Your task to perform on an android device: What's on the menu at Pizza Hut? Image 0: 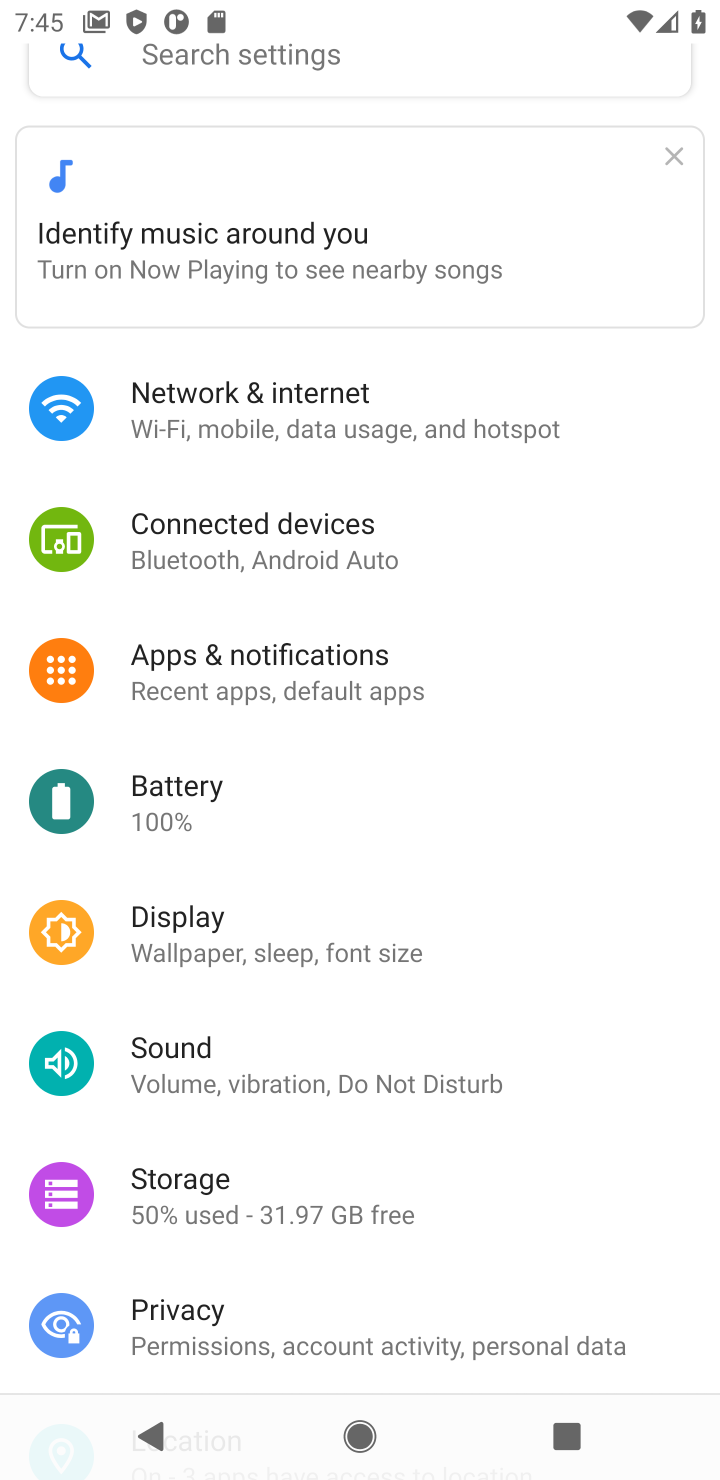
Step 0: press home button
Your task to perform on an android device: What's on the menu at Pizza Hut? Image 1: 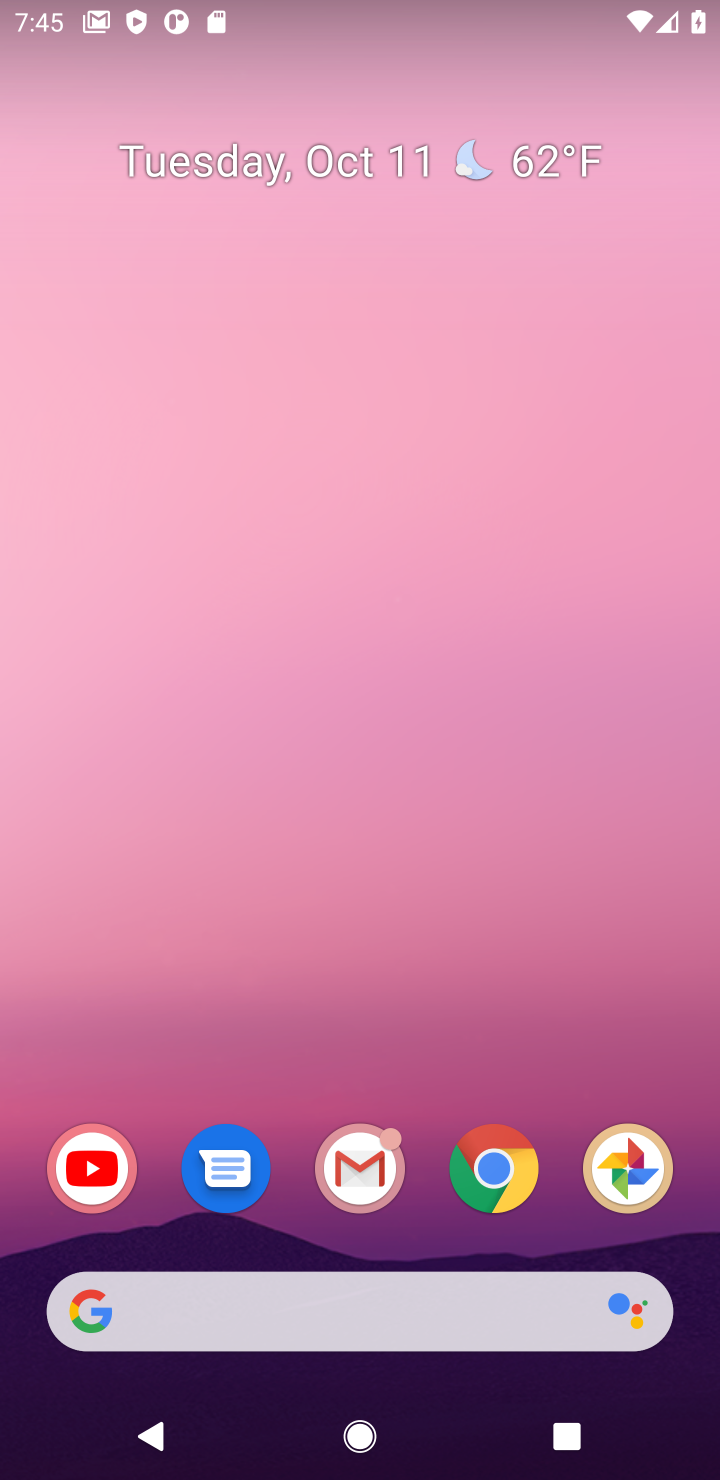
Step 1: click (499, 1152)
Your task to perform on an android device: What's on the menu at Pizza Hut? Image 2: 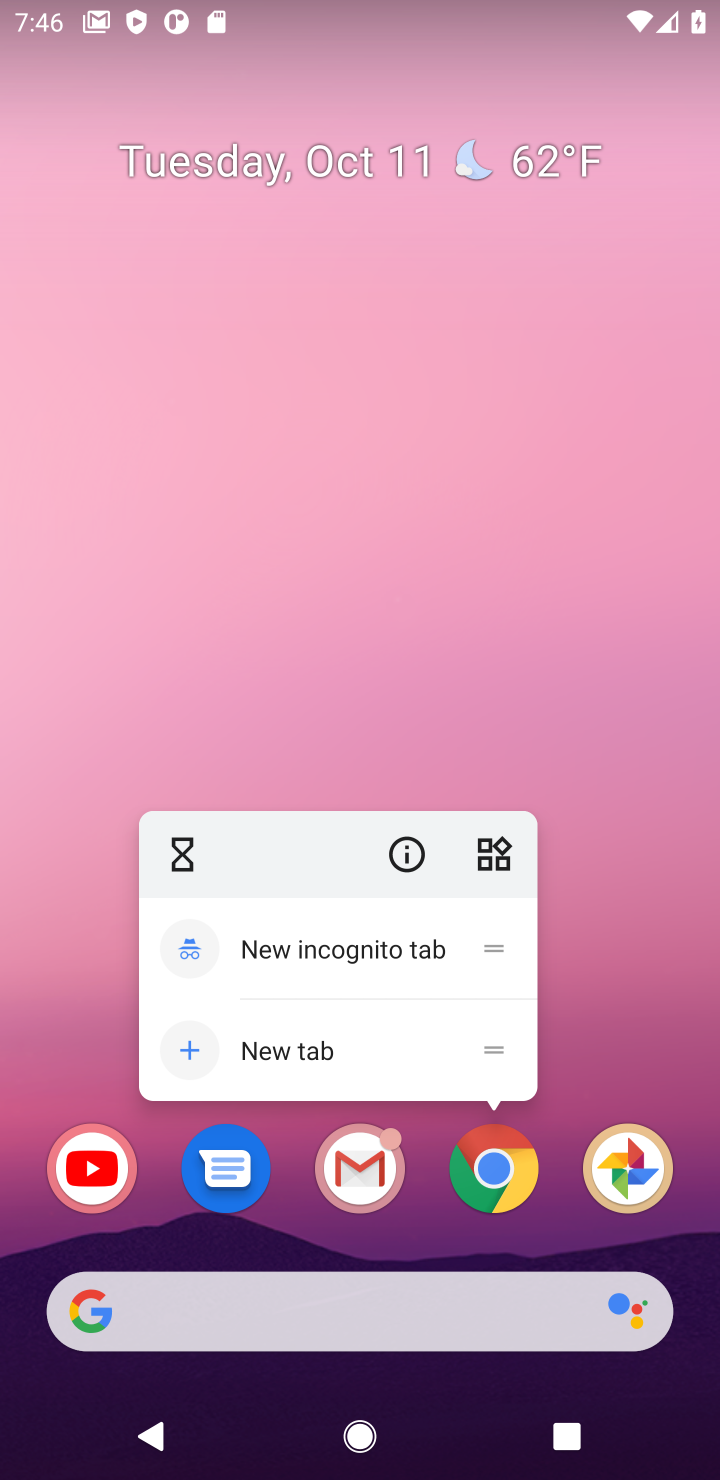
Step 2: click (499, 1154)
Your task to perform on an android device: What's on the menu at Pizza Hut? Image 3: 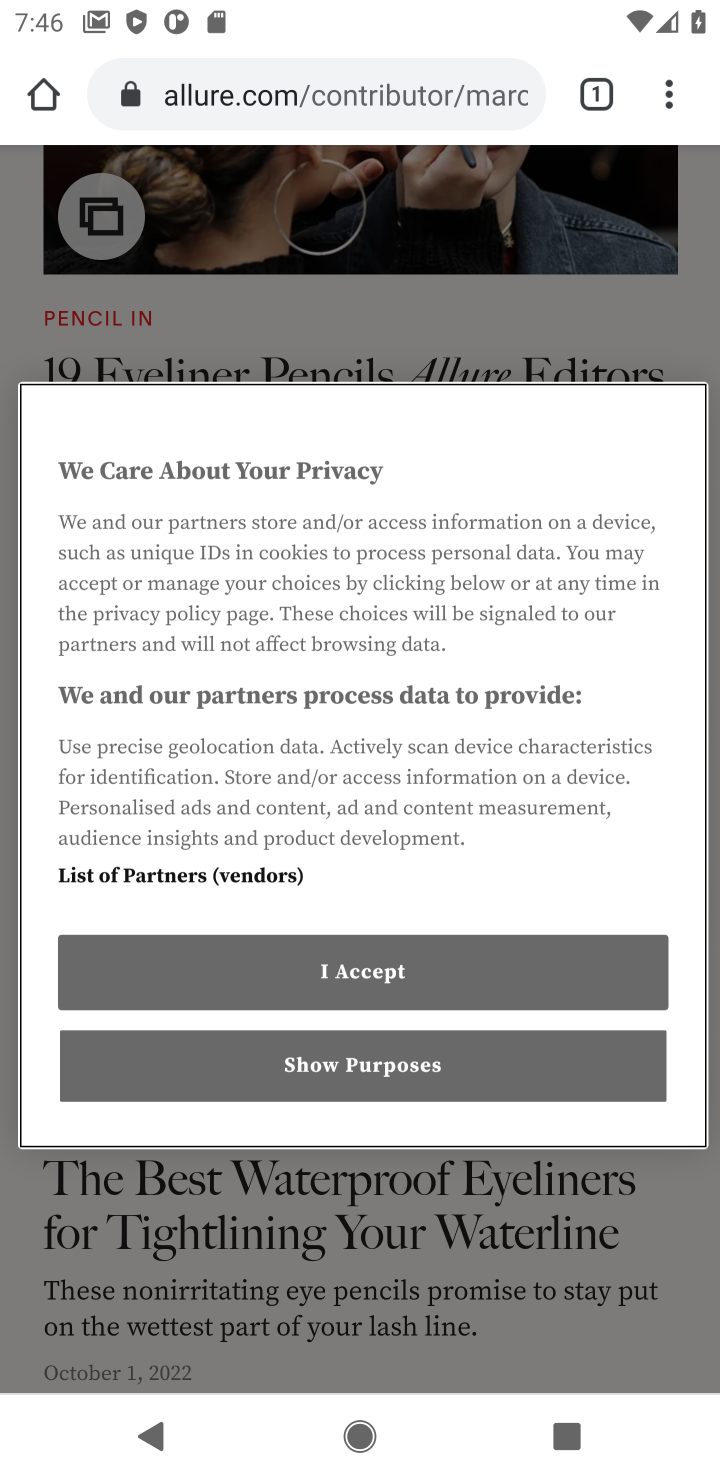
Step 3: click (370, 102)
Your task to perform on an android device: What's on the menu at Pizza Hut? Image 4: 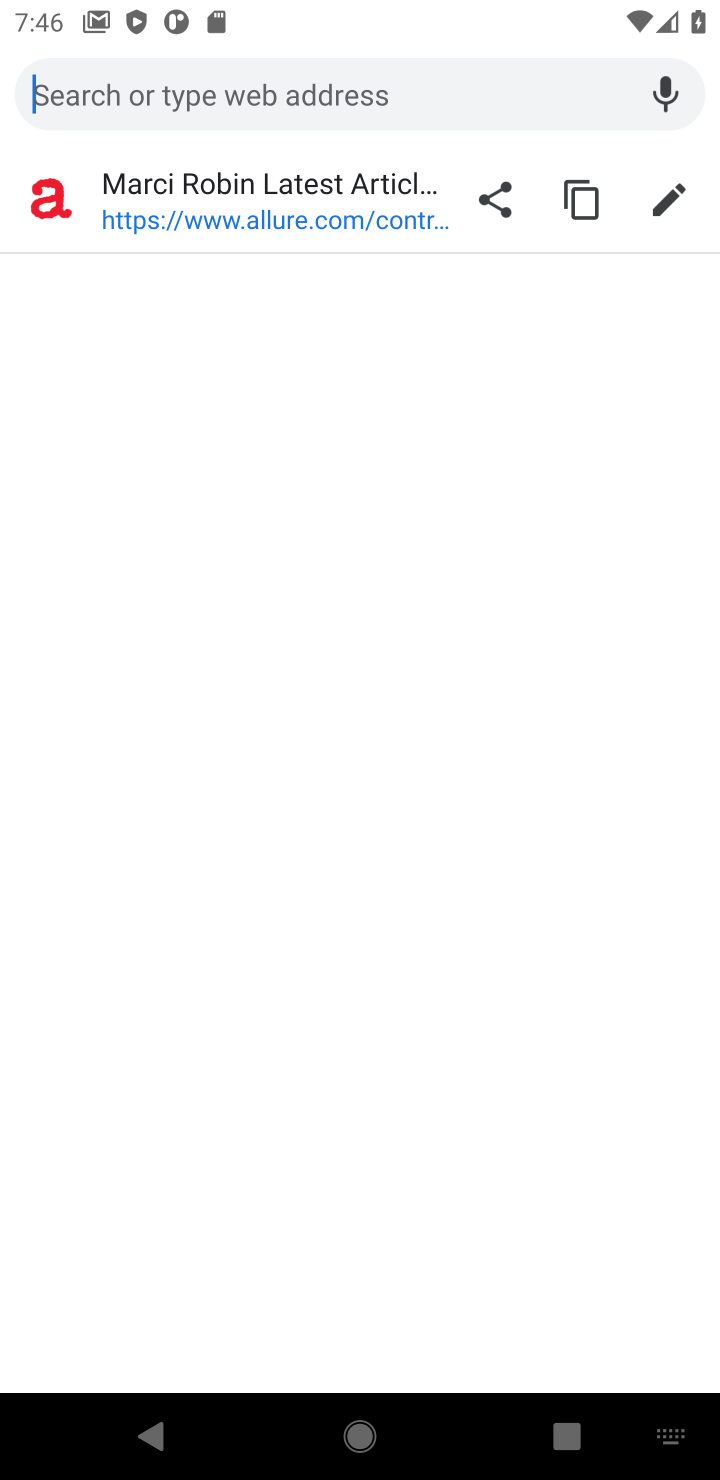
Step 4: type "pizzahut"
Your task to perform on an android device: What's on the menu at Pizza Hut? Image 5: 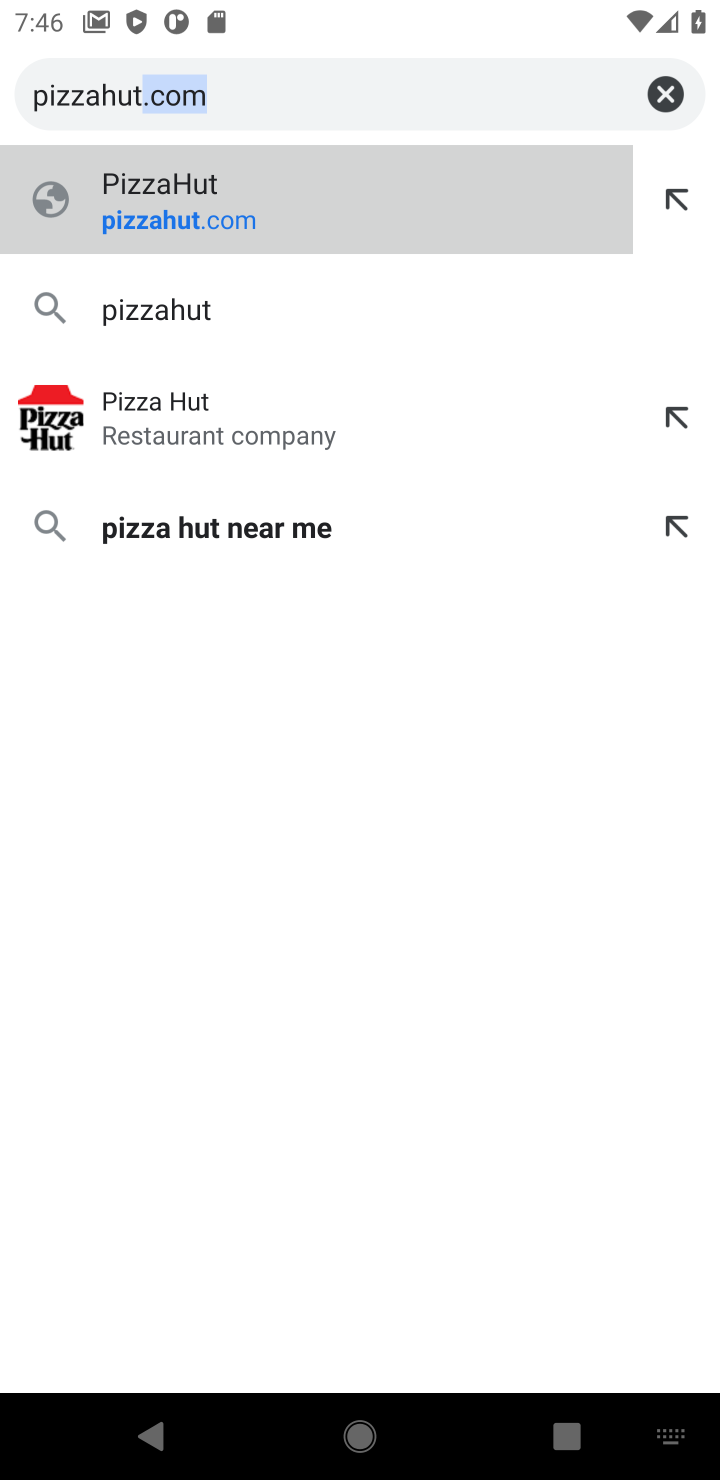
Step 5: click (198, 226)
Your task to perform on an android device: What's on the menu at Pizza Hut? Image 6: 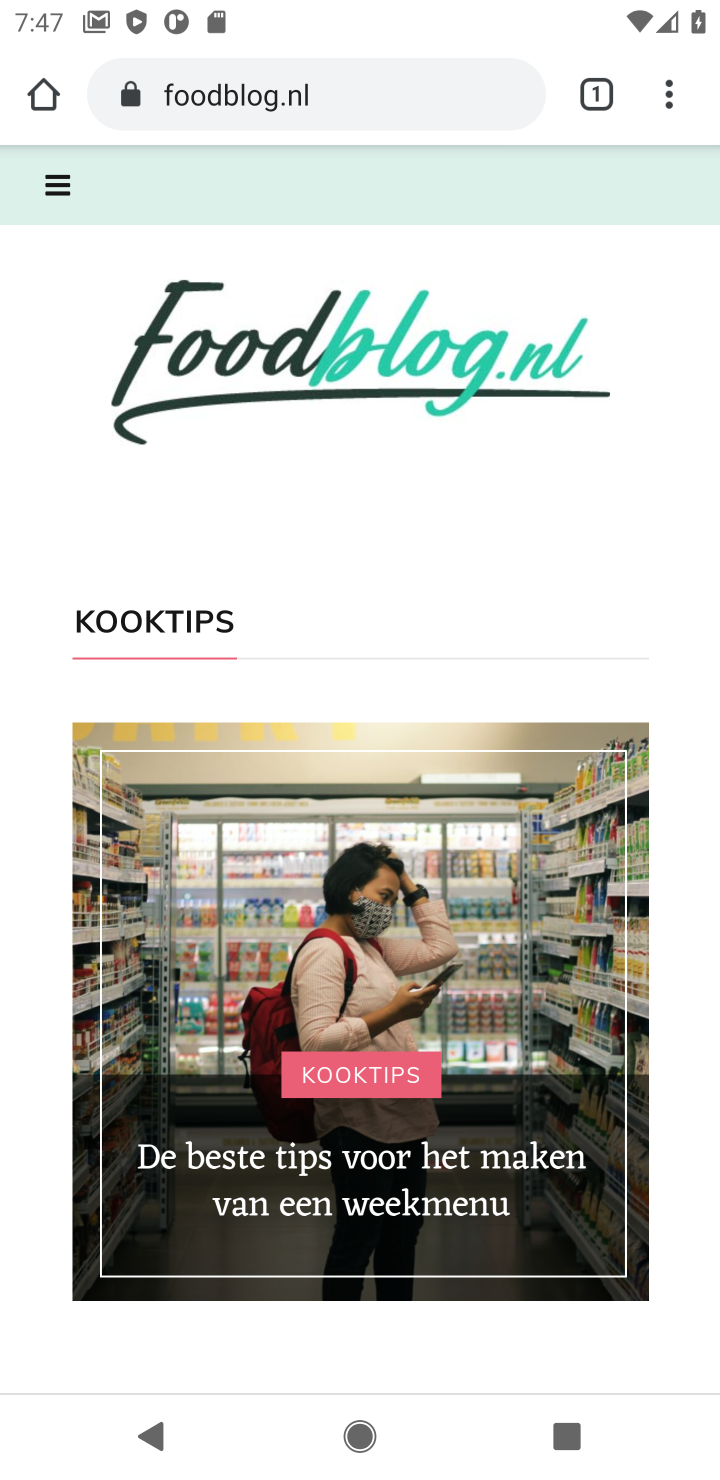
Step 6: drag from (475, 710) to (335, 945)
Your task to perform on an android device: What's on the menu at Pizza Hut? Image 7: 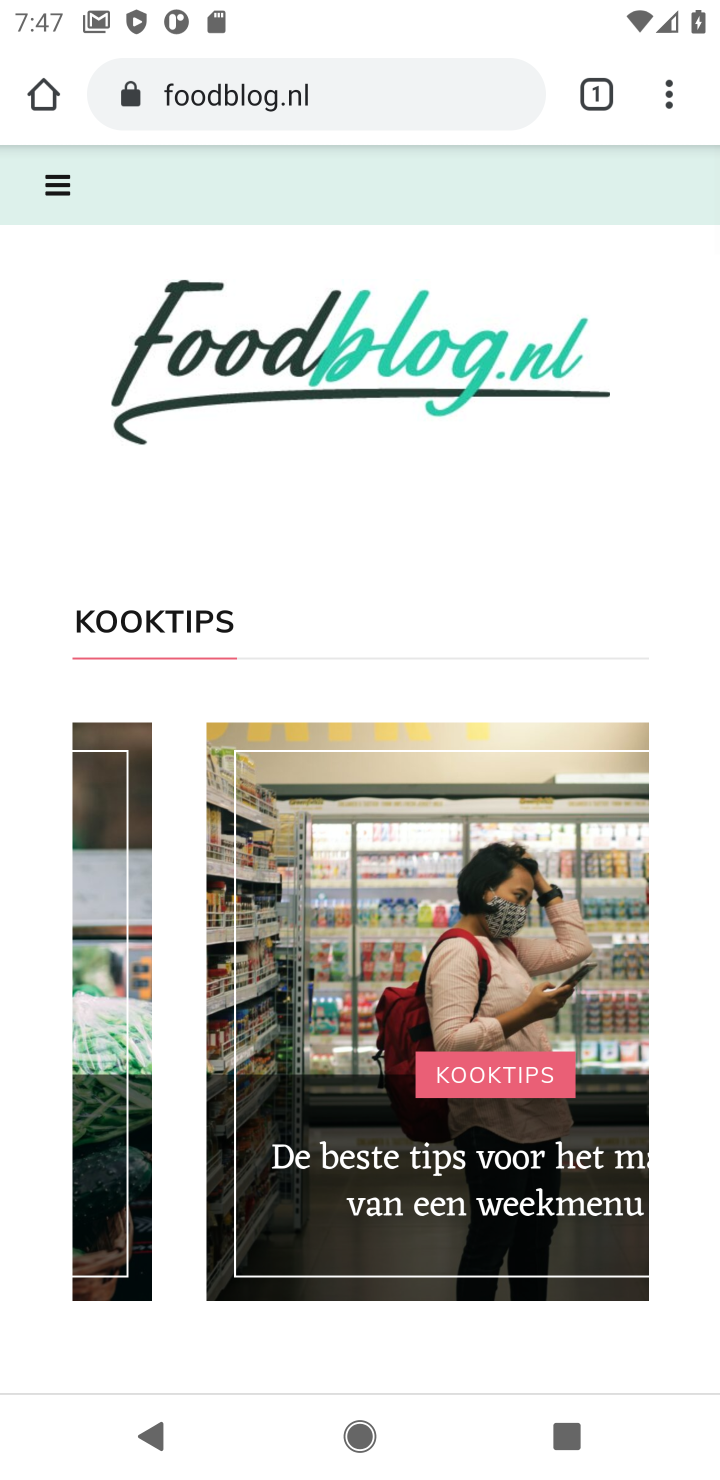
Step 7: drag from (176, 1259) to (217, 473)
Your task to perform on an android device: What's on the menu at Pizza Hut? Image 8: 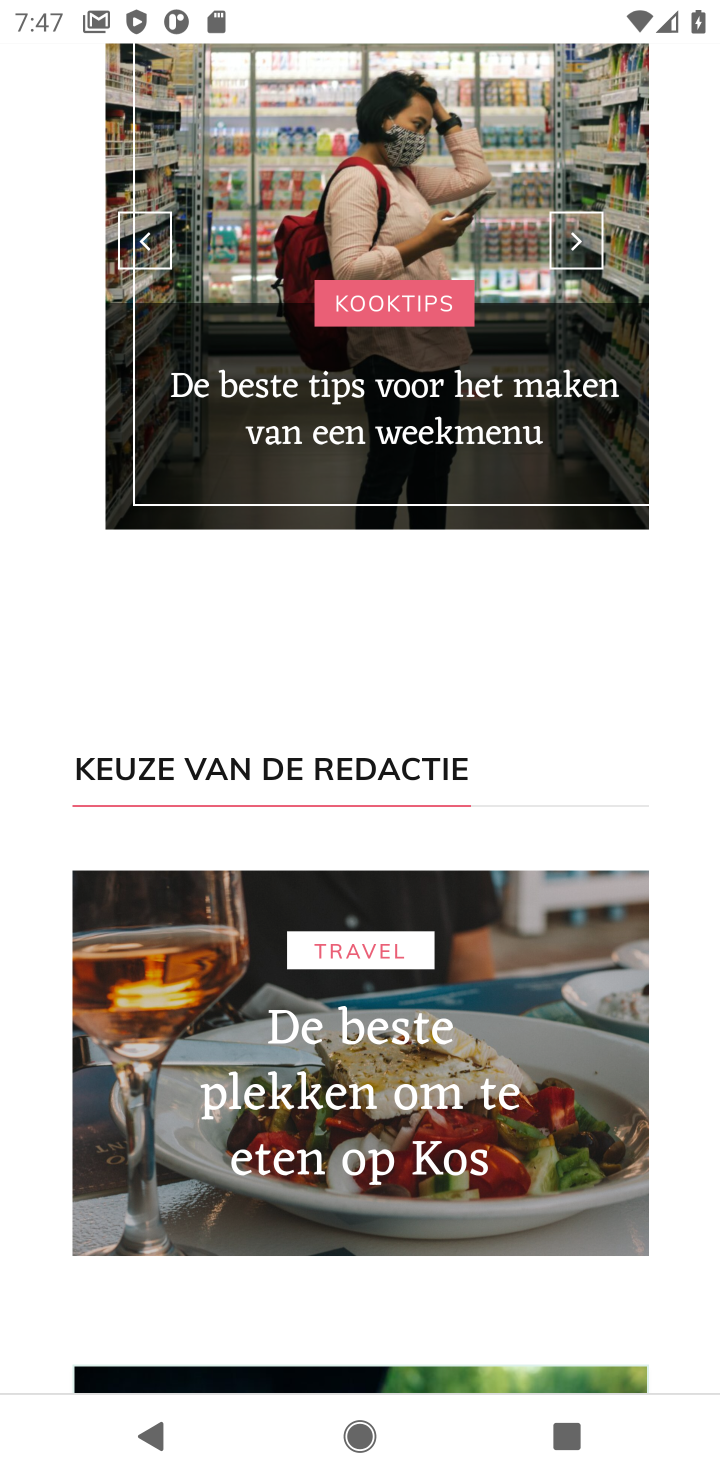
Step 8: drag from (392, 802) to (422, 266)
Your task to perform on an android device: What's on the menu at Pizza Hut? Image 9: 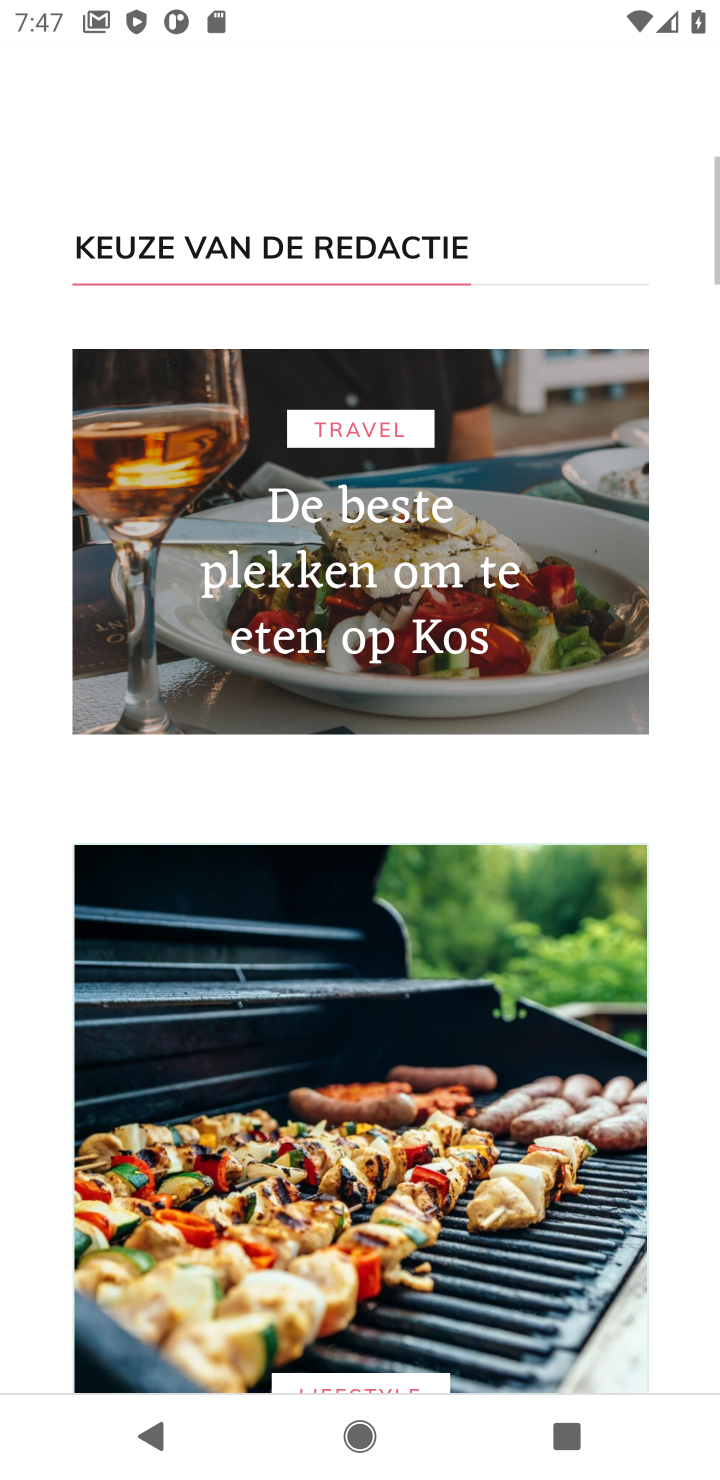
Step 9: drag from (470, 777) to (470, 533)
Your task to perform on an android device: What's on the menu at Pizza Hut? Image 10: 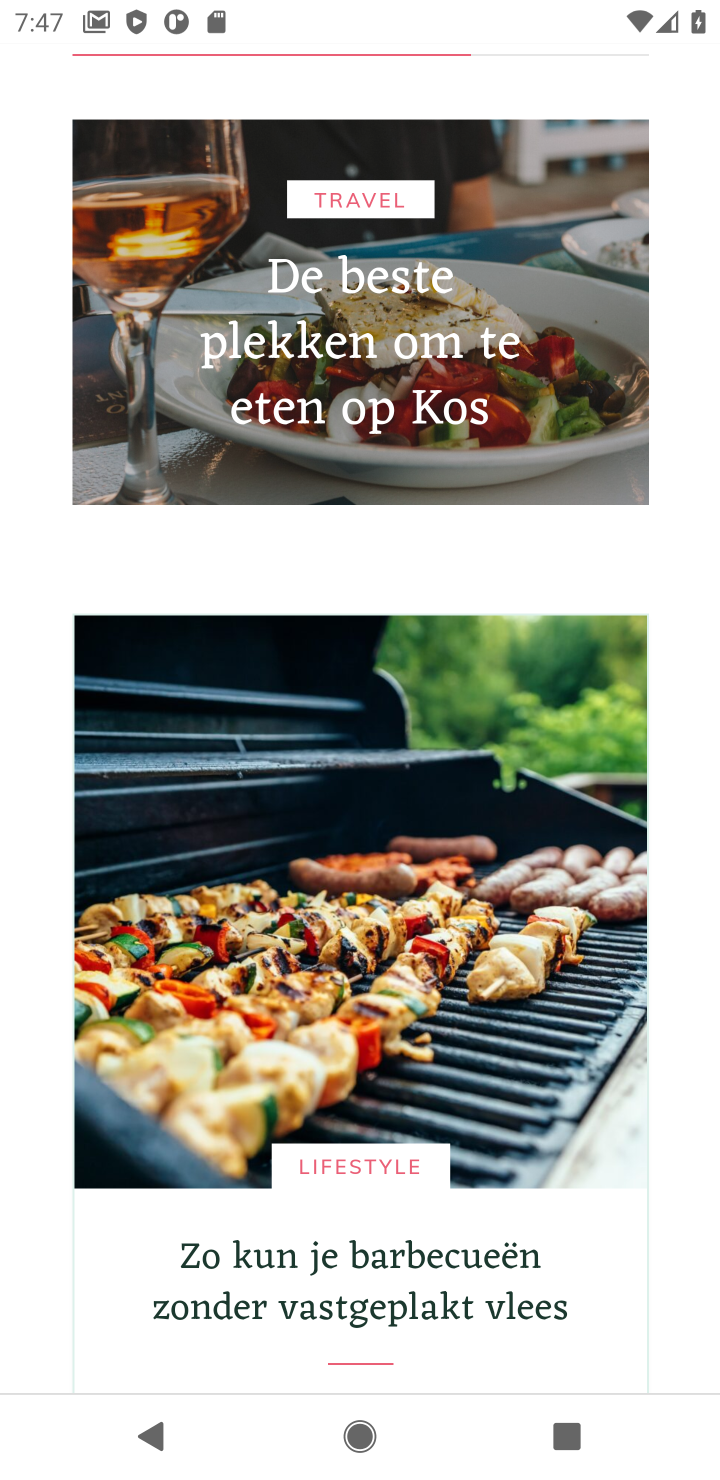
Step 10: click (570, 645)
Your task to perform on an android device: What's on the menu at Pizza Hut? Image 11: 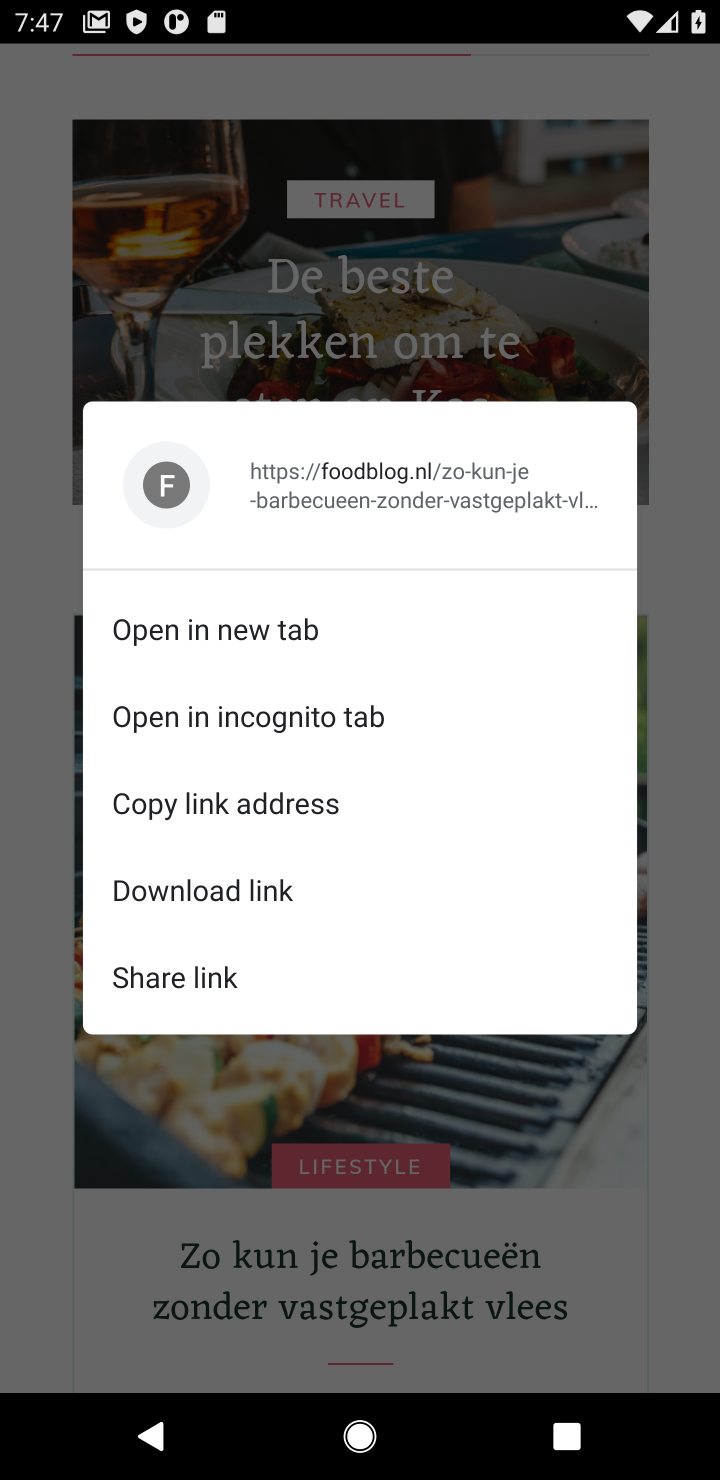
Step 11: drag from (643, 990) to (643, 679)
Your task to perform on an android device: What's on the menu at Pizza Hut? Image 12: 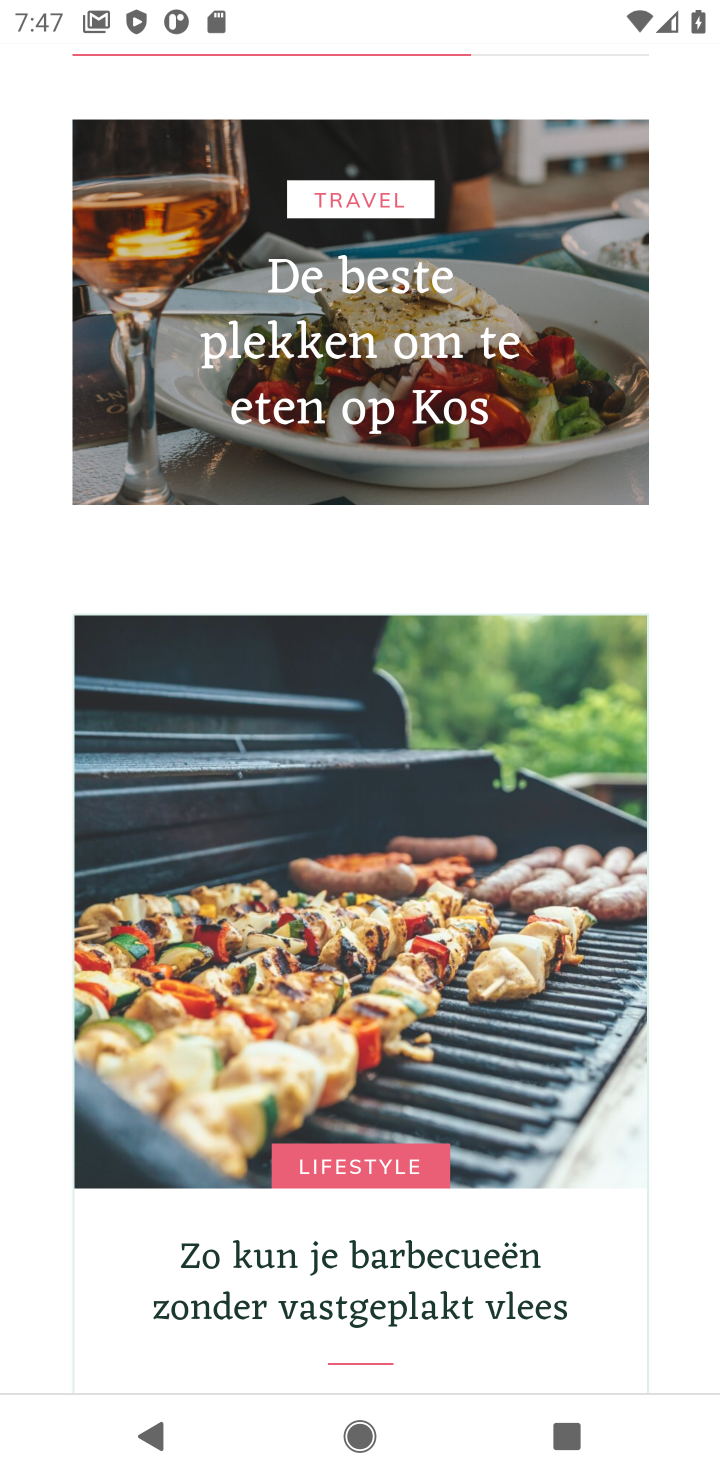
Step 12: click (483, 781)
Your task to perform on an android device: What's on the menu at Pizza Hut? Image 13: 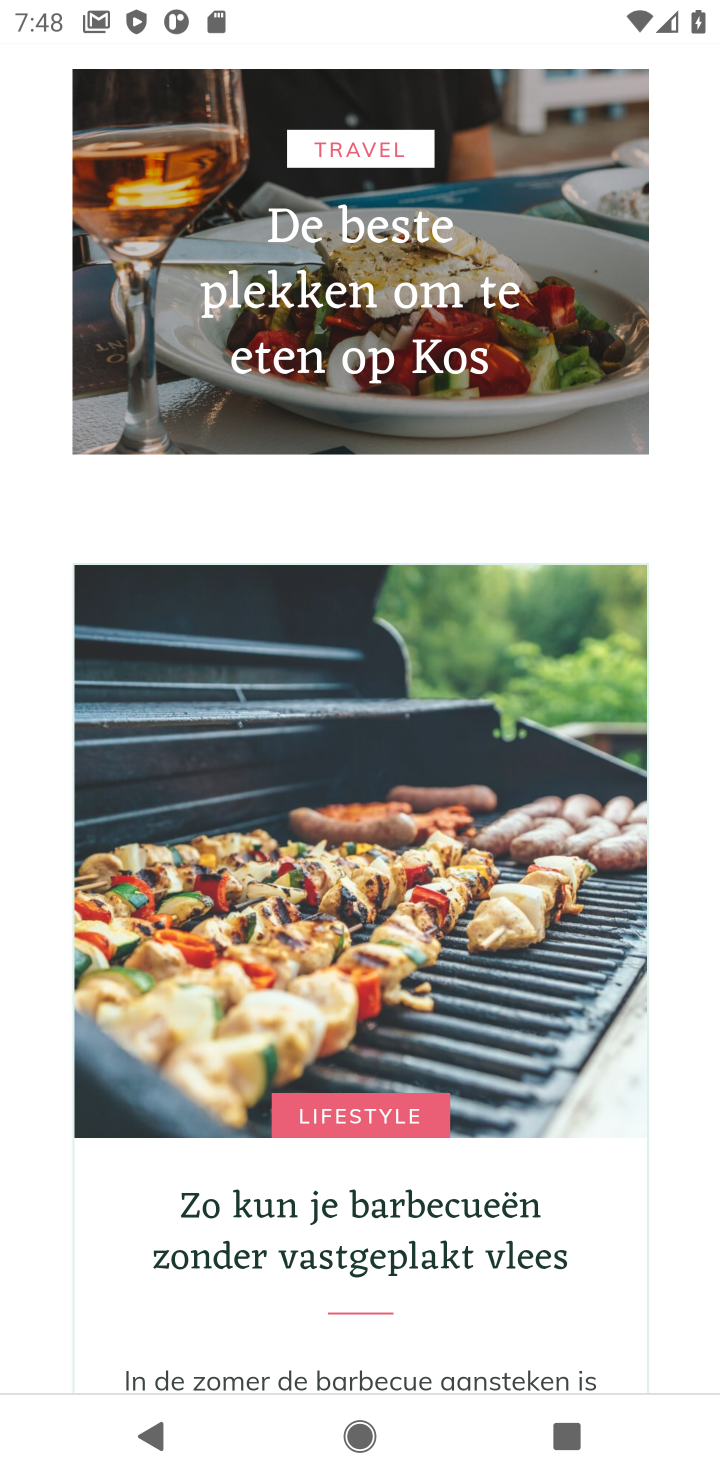
Step 13: drag from (330, 845) to (365, 431)
Your task to perform on an android device: What's on the menu at Pizza Hut? Image 14: 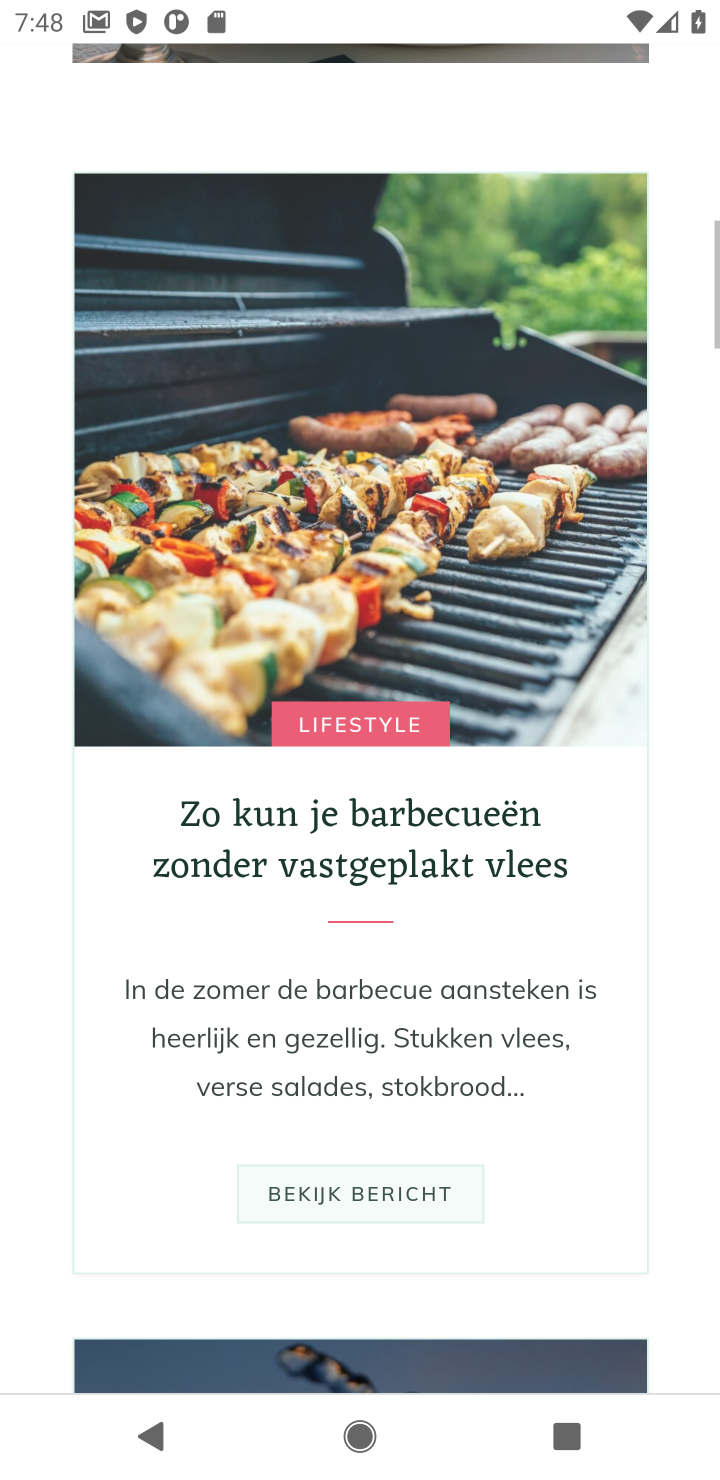
Step 14: drag from (493, 839) to (493, 541)
Your task to perform on an android device: What's on the menu at Pizza Hut? Image 15: 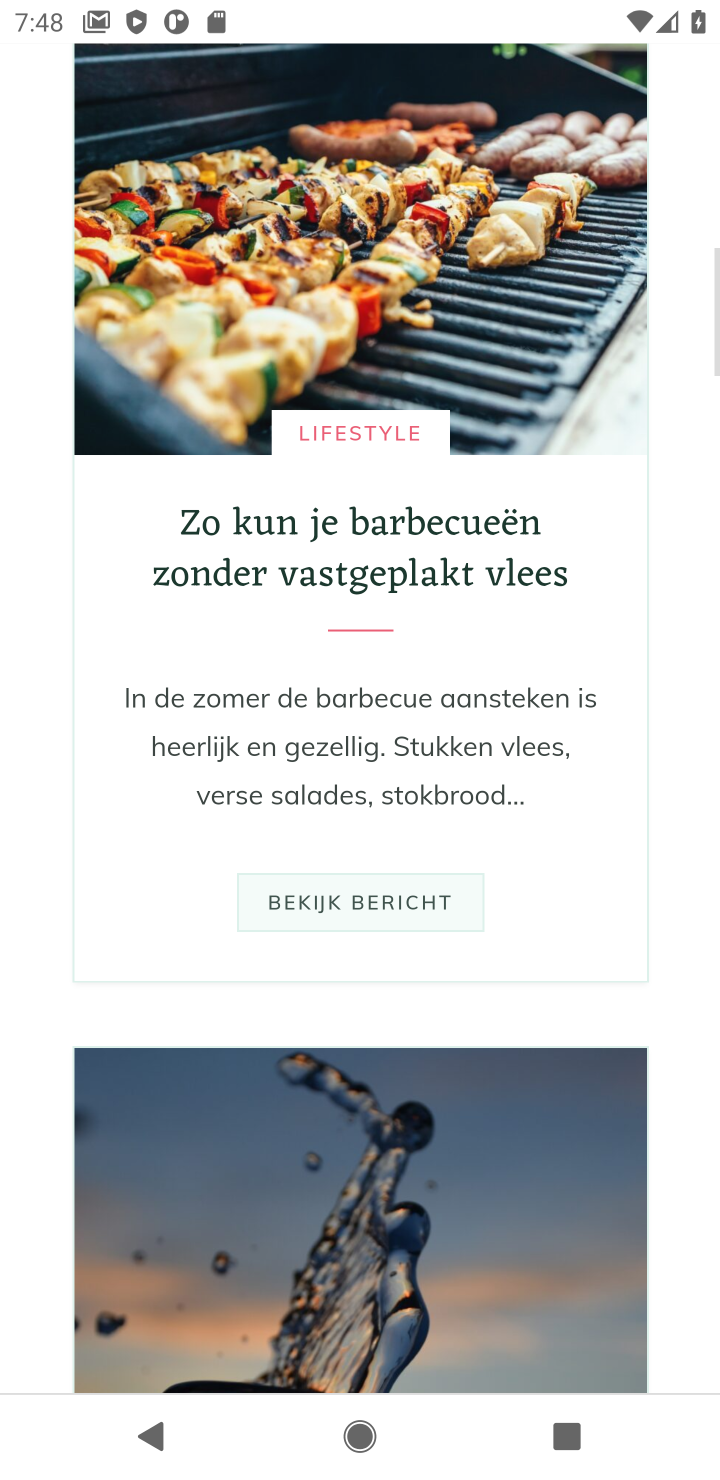
Step 15: drag from (571, 791) to (492, 250)
Your task to perform on an android device: What's on the menu at Pizza Hut? Image 16: 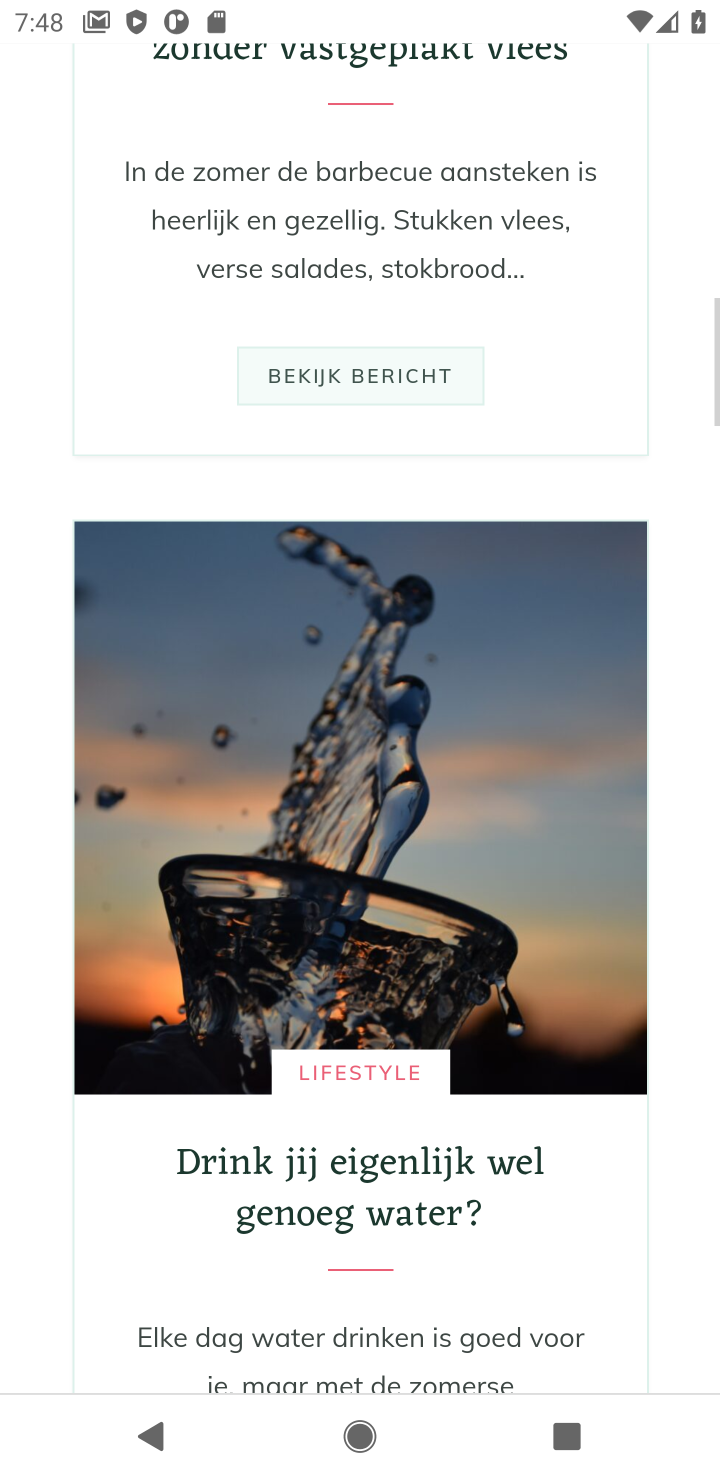
Step 16: drag from (562, 511) to (545, 397)
Your task to perform on an android device: What's on the menu at Pizza Hut? Image 17: 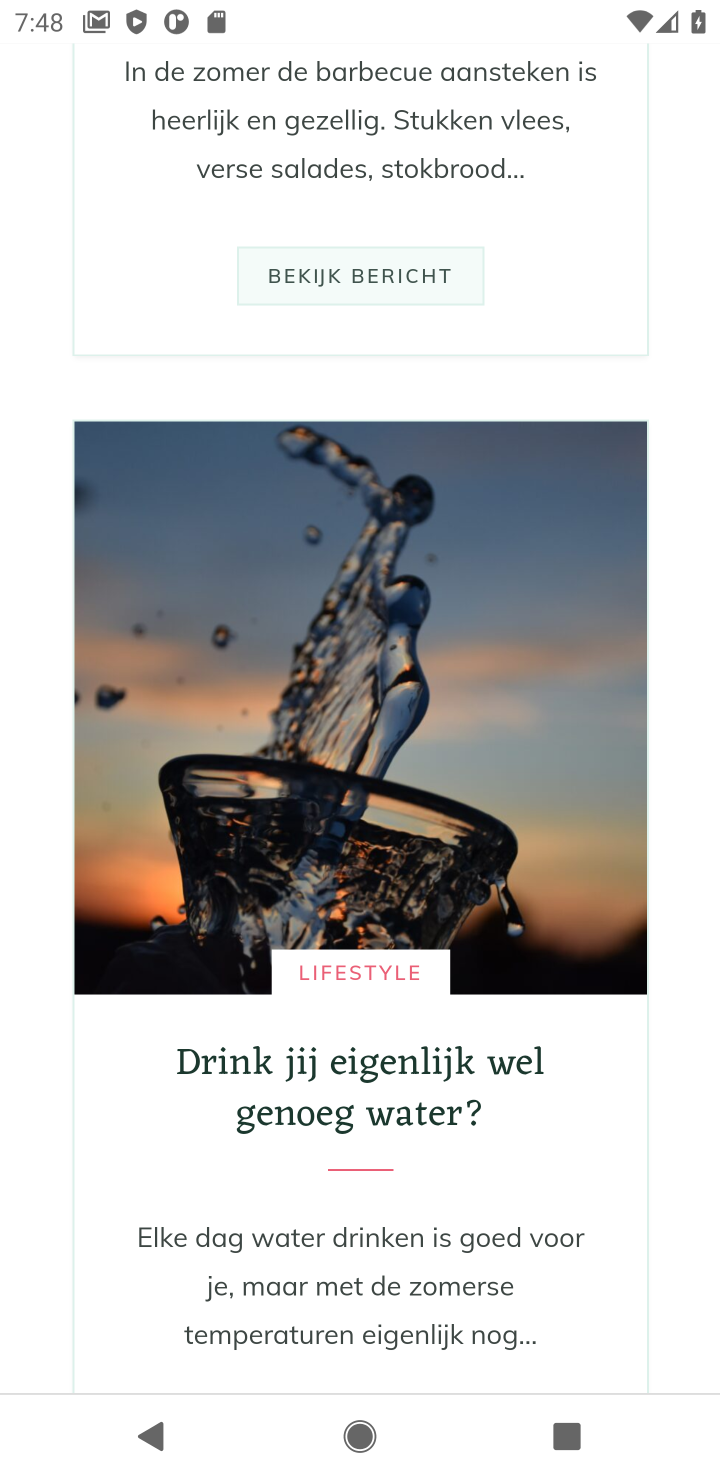
Step 17: drag from (492, 815) to (517, 443)
Your task to perform on an android device: What's on the menu at Pizza Hut? Image 18: 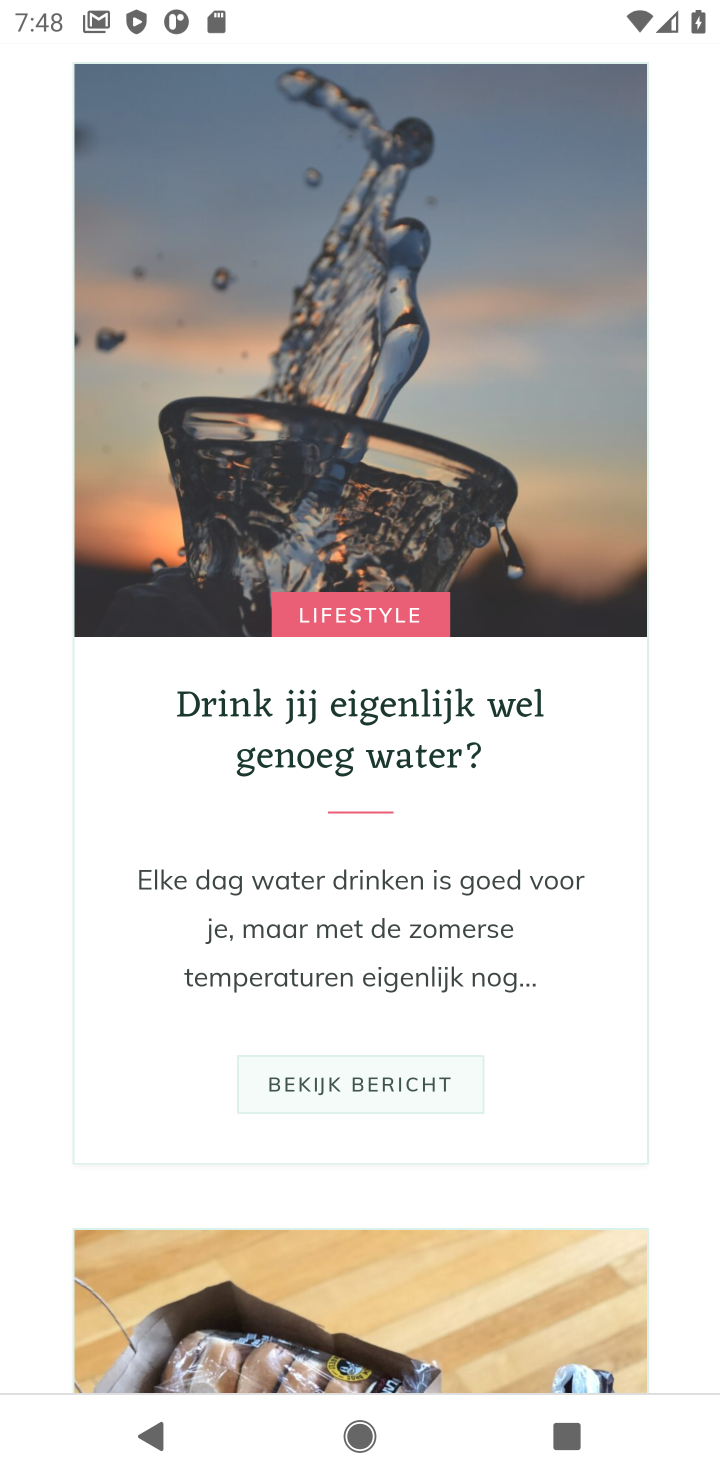
Step 18: drag from (447, 867) to (497, 544)
Your task to perform on an android device: What's on the menu at Pizza Hut? Image 19: 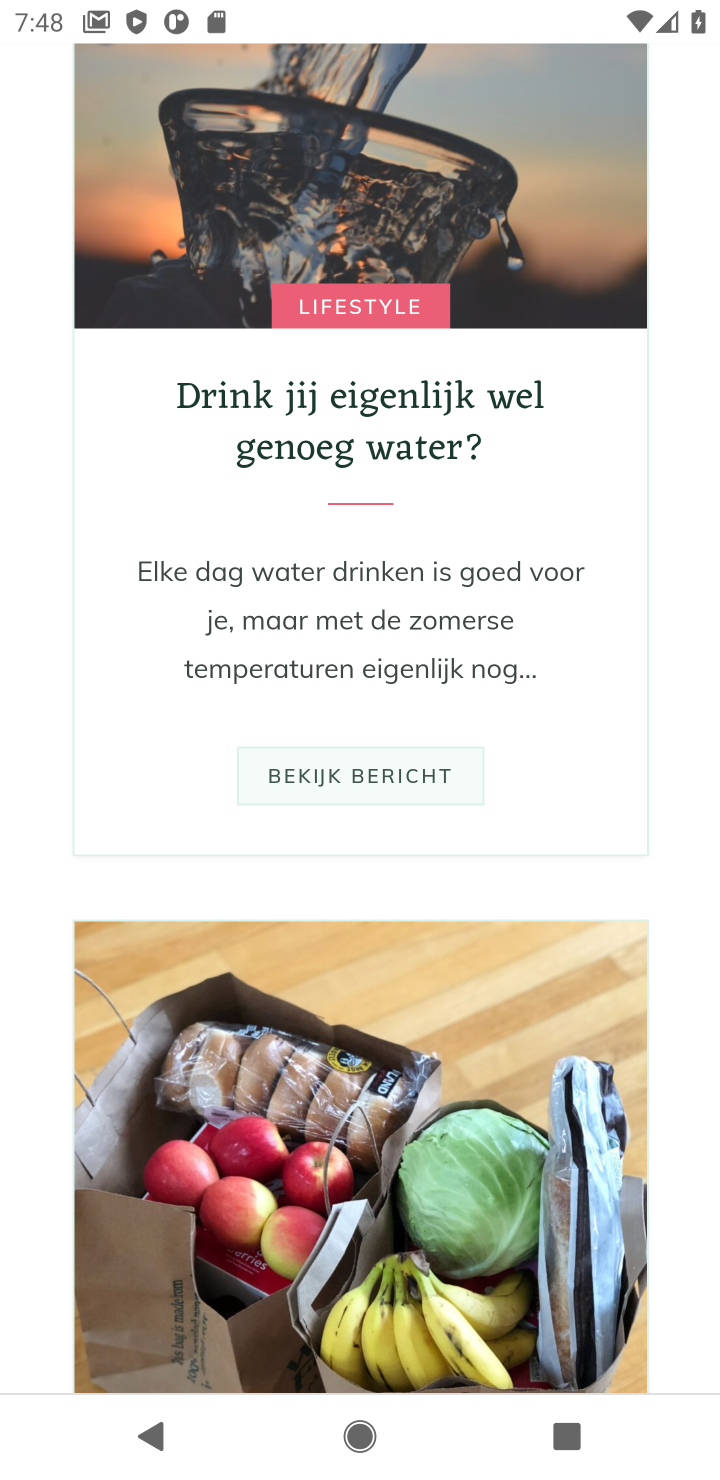
Step 19: press back button
Your task to perform on an android device: What's on the menu at Pizza Hut? Image 20: 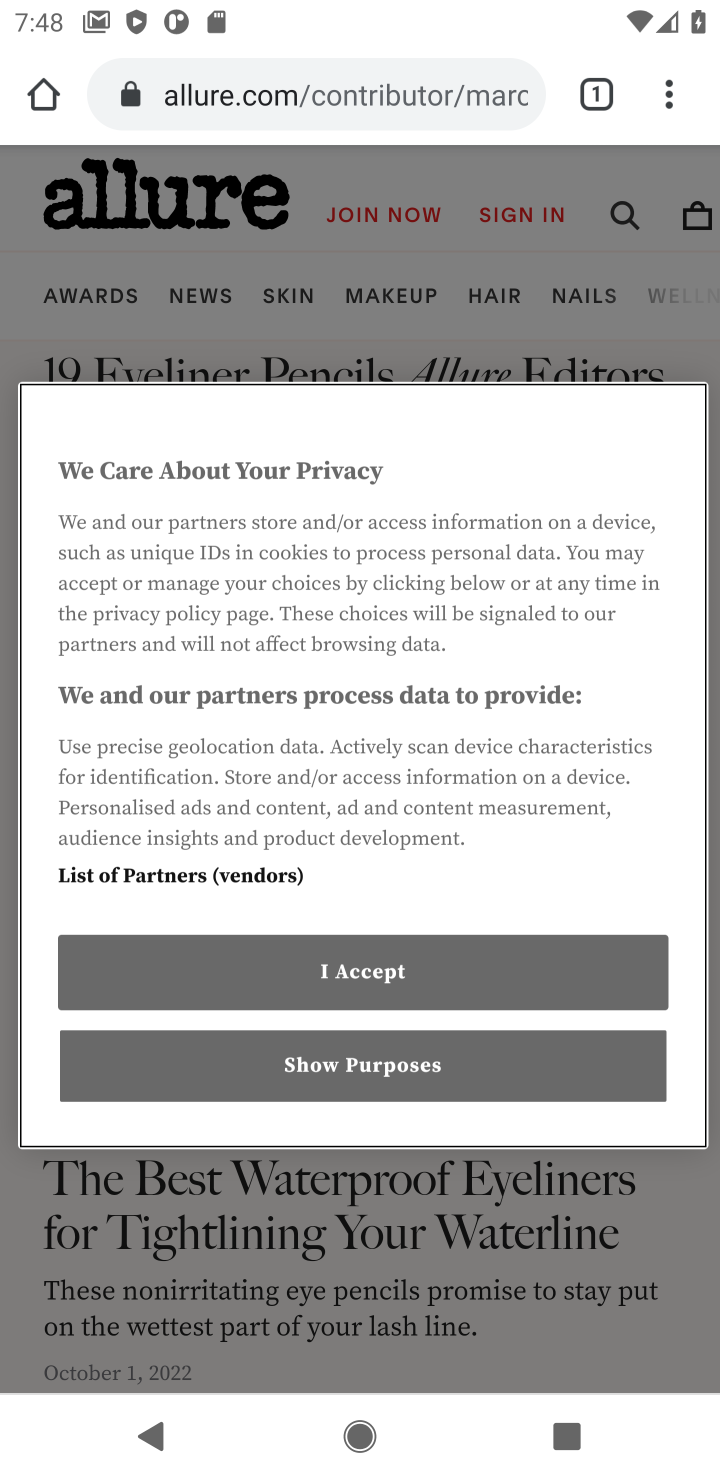
Step 20: click (374, 975)
Your task to perform on an android device: What's on the menu at Pizza Hut? Image 21: 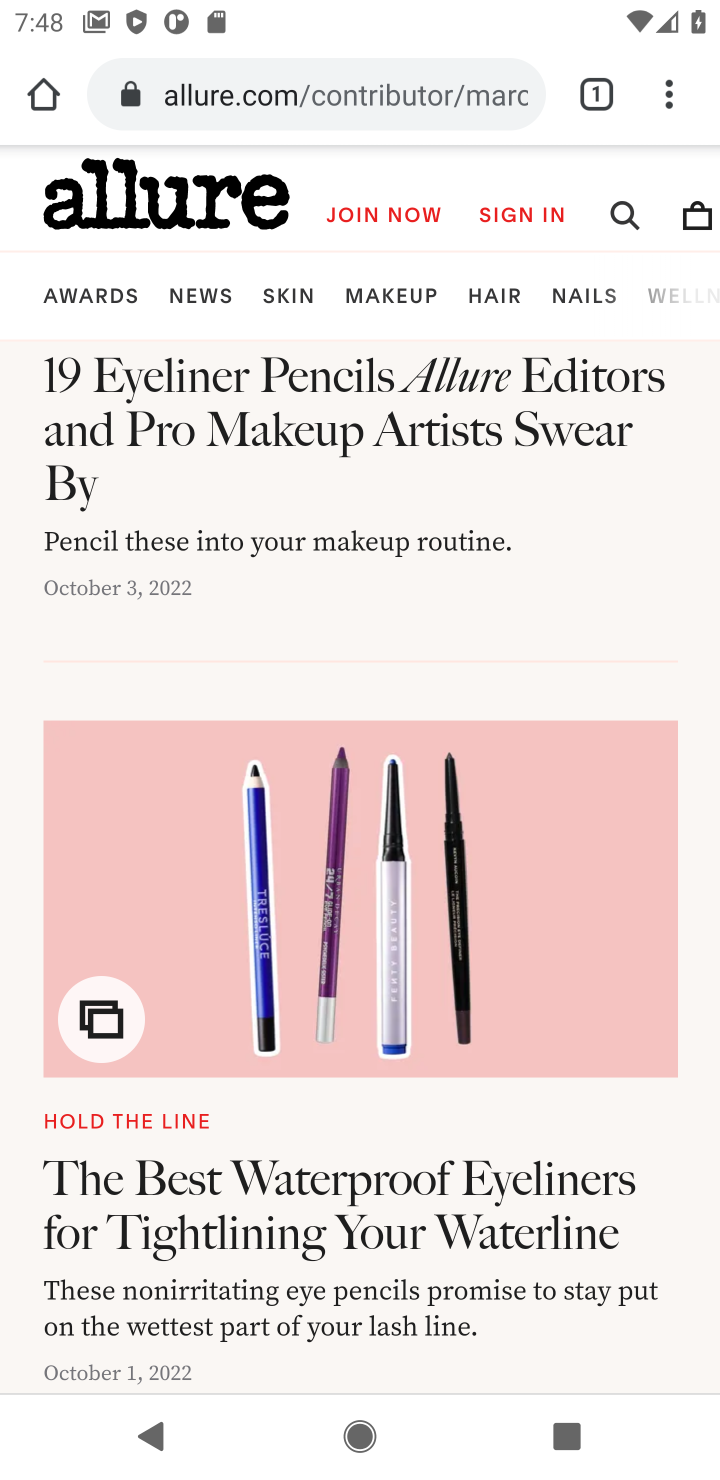
Step 21: click (388, 100)
Your task to perform on an android device: What's on the menu at Pizza Hut? Image 22: 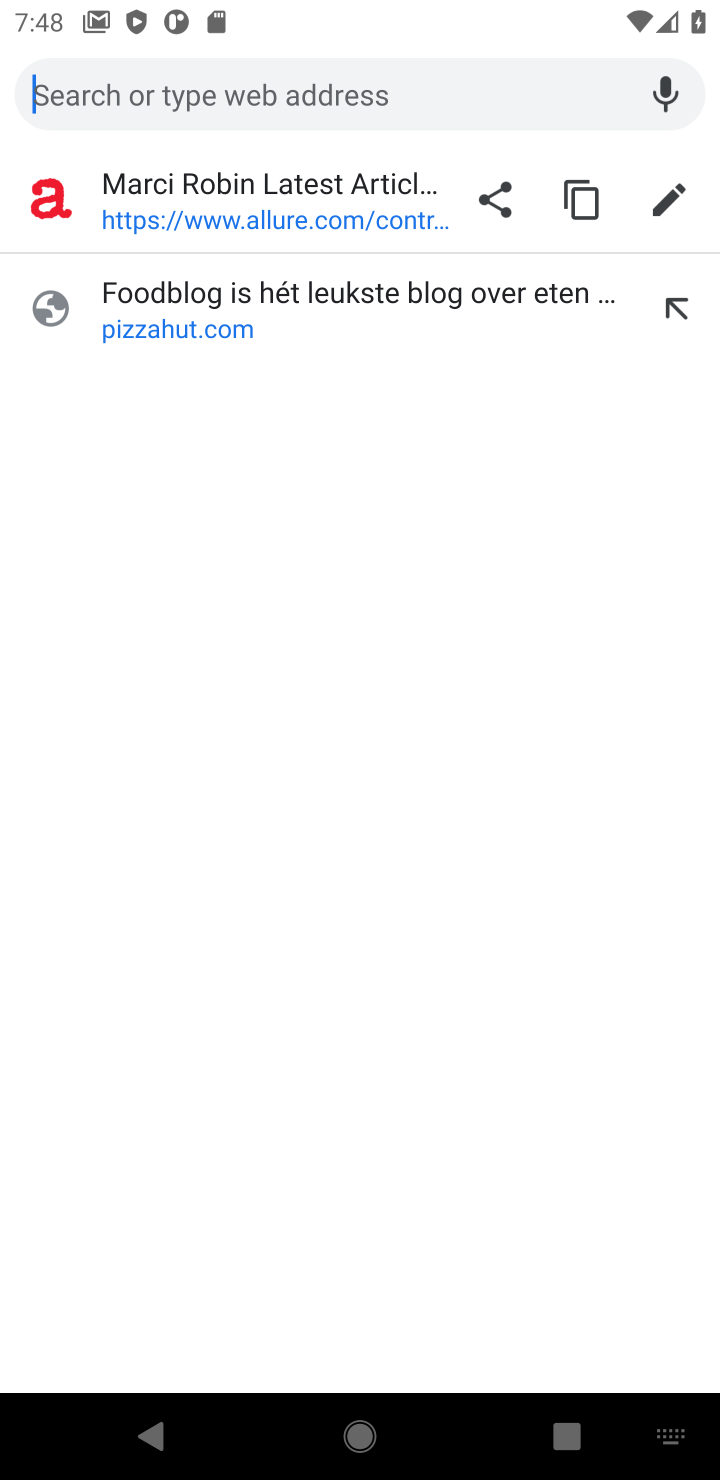
Step 22: type "pizzahut"
Your task to perform on an android device: What's on the menu at Pizza Hut? Image 23: 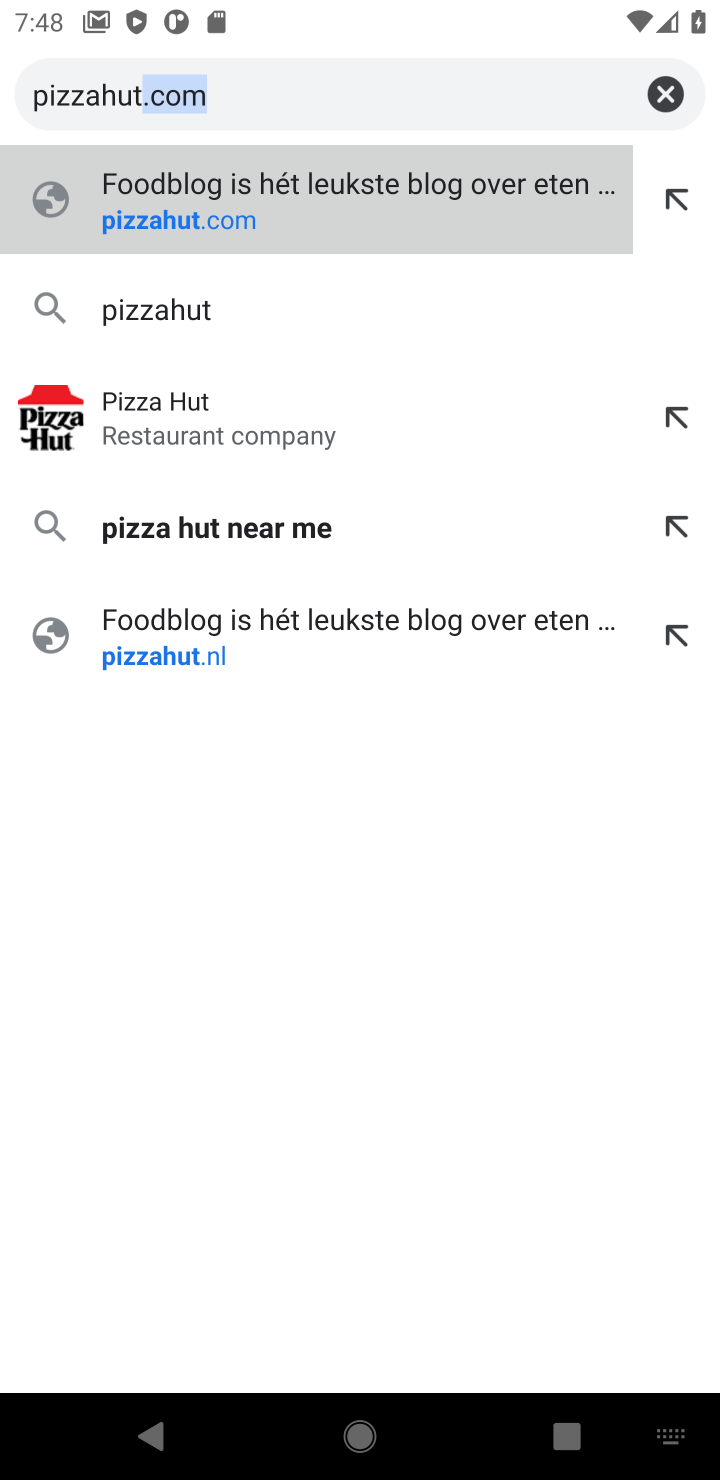
Step 23: click (169, 420)
Your task to perform on an android device: What's on the menu at Pizza Hut? Image 24: 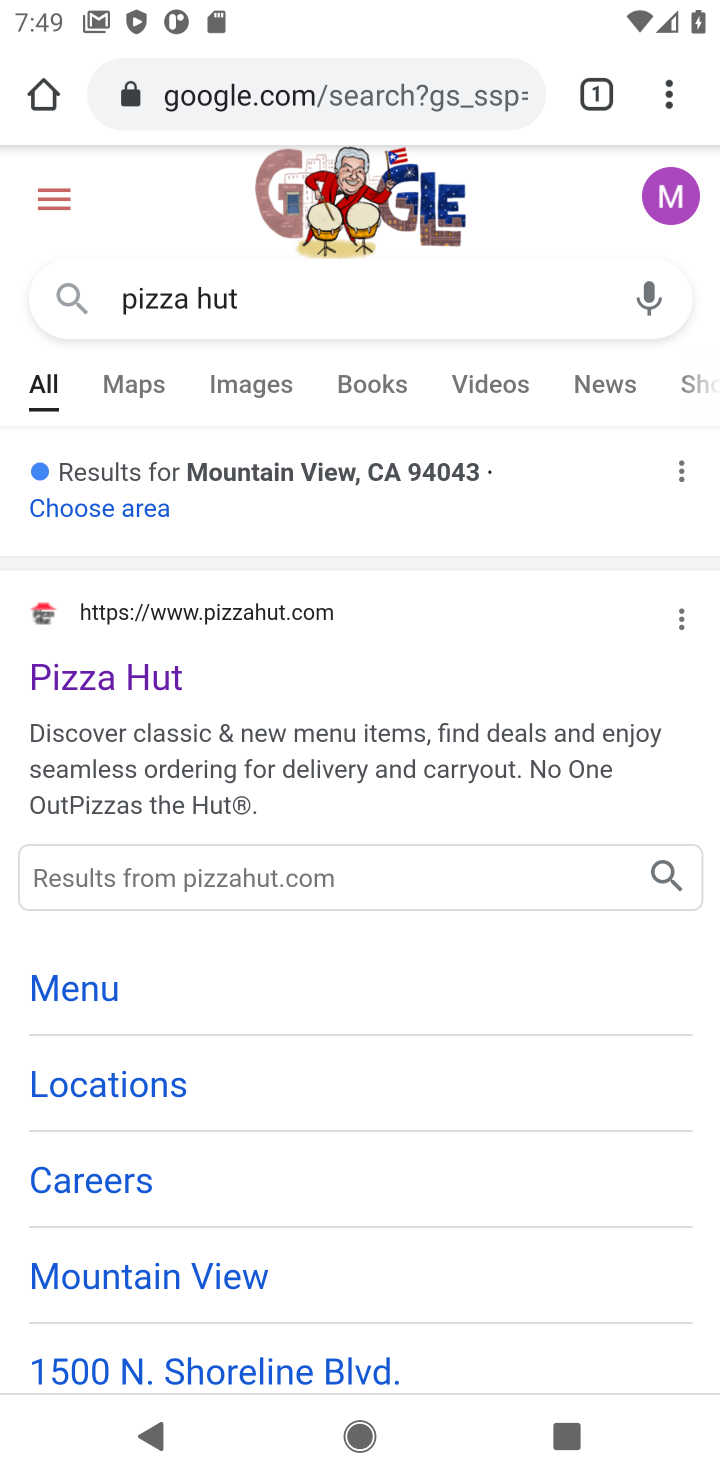
Step 24: click (48, 971)
Your task to perform on an android device: What's on the menu at Pizza Hut? Image 25: 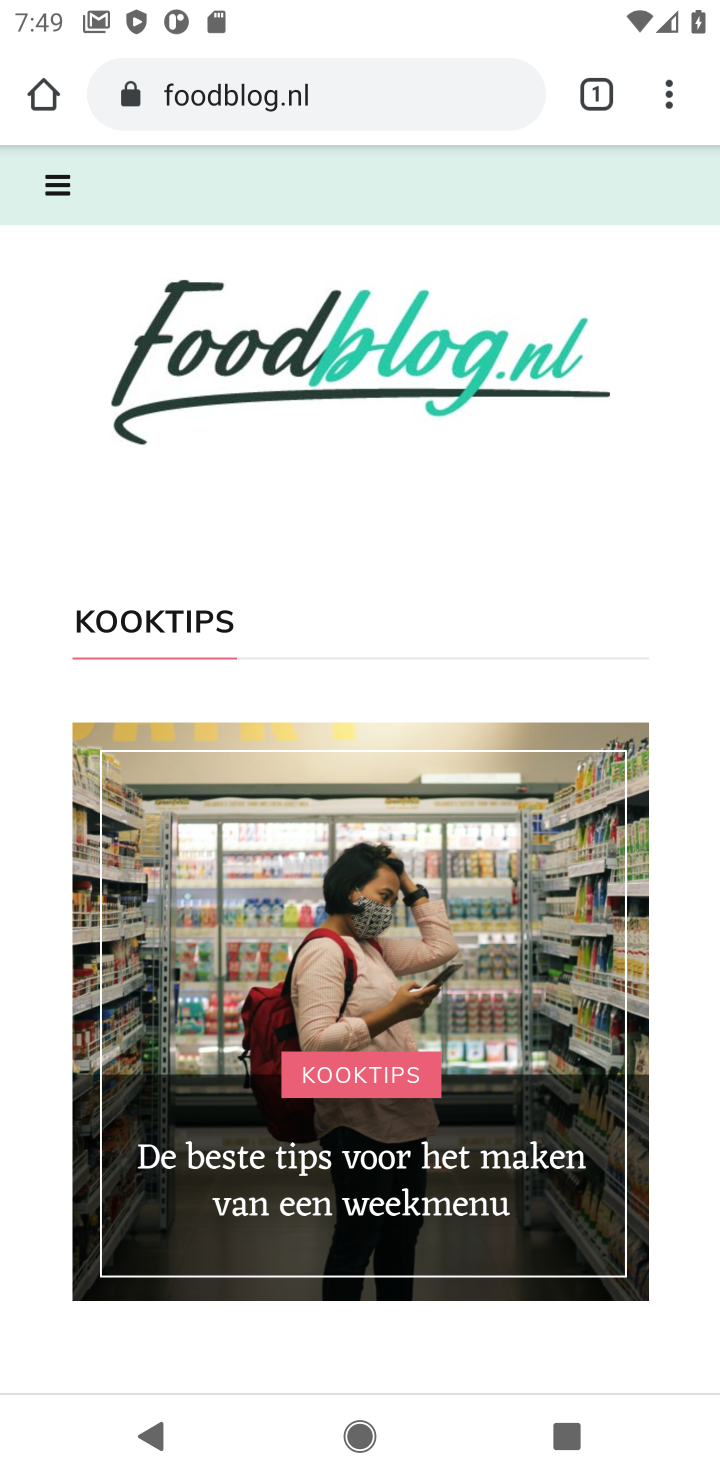
Step 25: task complete